Your task to perform on an android device: move an email to a new category in the gmail app Image 0: 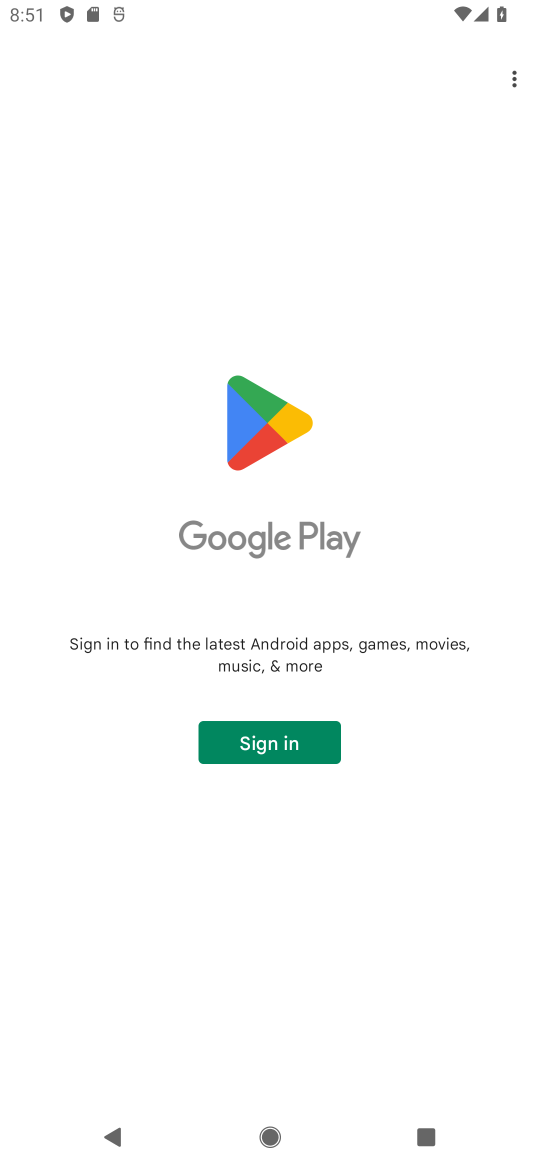
Step 0: press back button
Your task to perform on an android device: move an email to a new category in the gmail app Image 1: 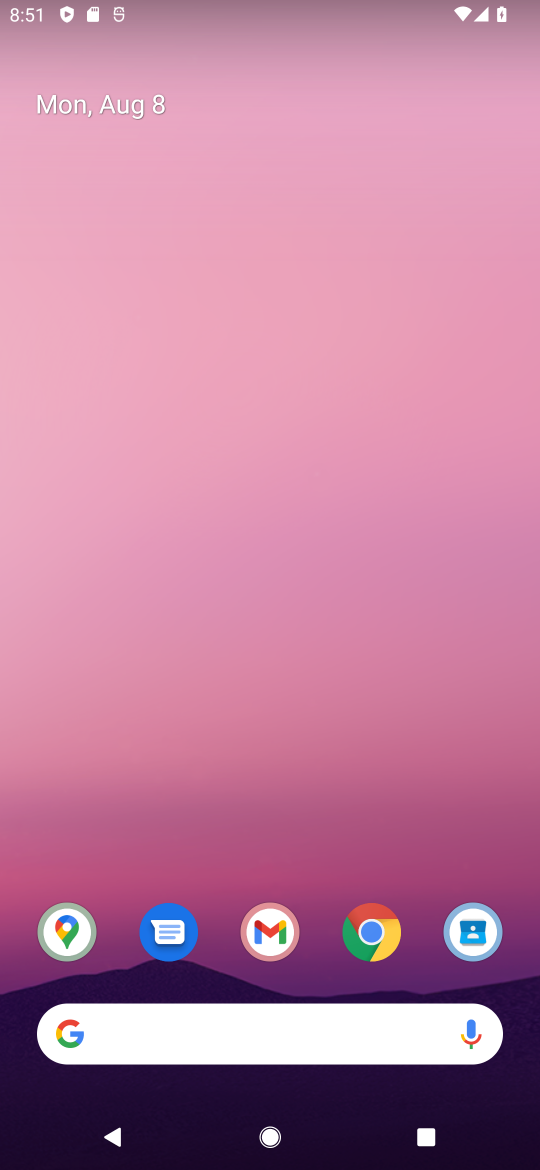
Step 1: click (262, 928)
Your task to perform on an android device: move an email to a new category in the gmail app Image 2: 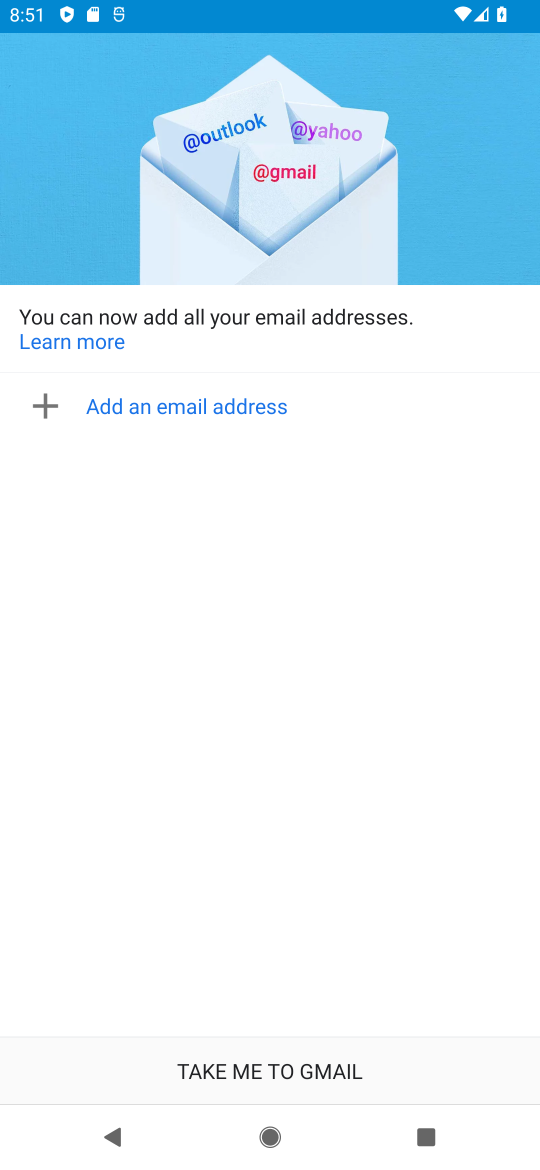
Step 2: task complete